Your task to perform on an android device: remove spam from my inbox in the gmail app Image 0: 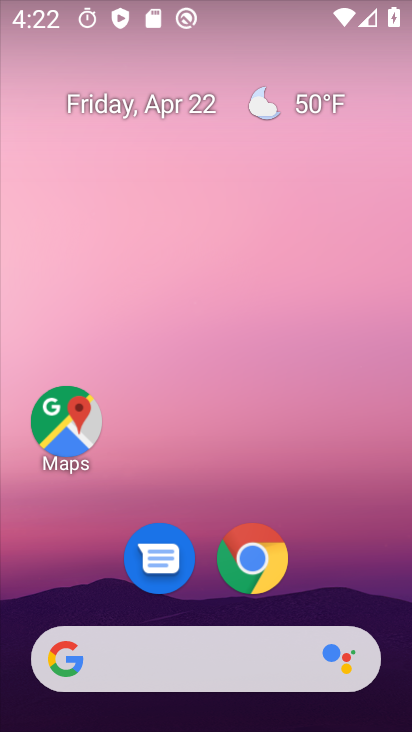
Step 0: drag from (318, 601) to (319, 134)
Your task to perform on an android device: remove spam from my inbox in the gmail app Image 1: 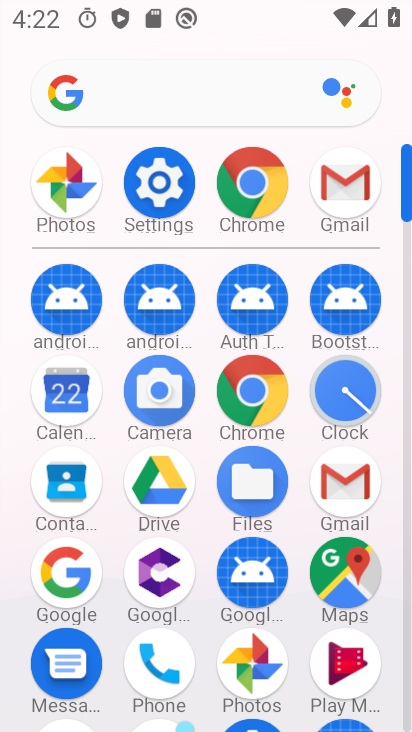
Step 1: click (358, 187)
Your task to perform on an android device: remove spam from my inbox in the gmail app Image 2: 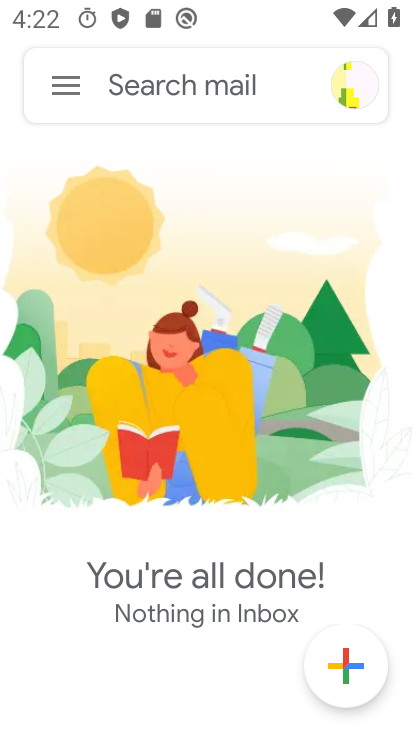
Step 2: click (64, 94)
Your task to perform on an android device: remove spam from my inbox in the gmail app Image 3: 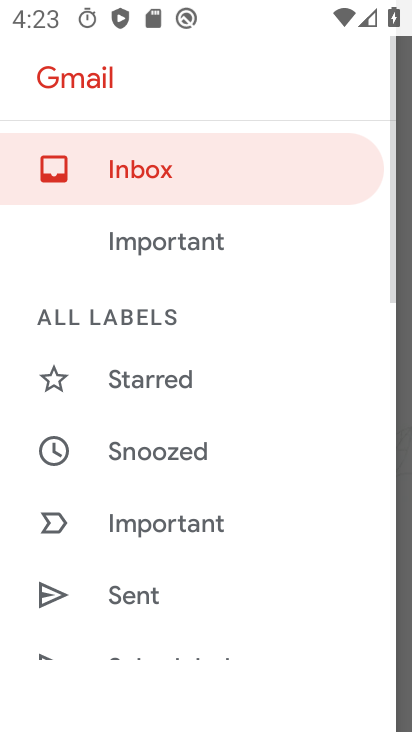
Step 3: drag from (235, 265) to (265, 560)
Your task to perform on an android device: remove spam from my inbox in the gmail app Image 4: 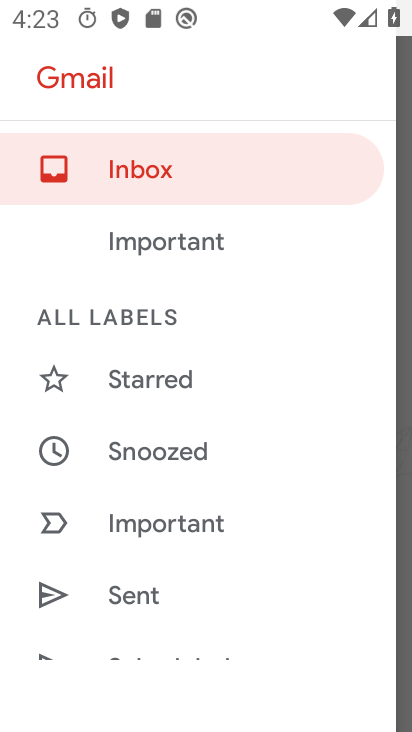
Step 4: drag from (230, 574) to (286, 196)
Your task to perform on an android device: remove spam from my inbox in the gmail app Image 5: 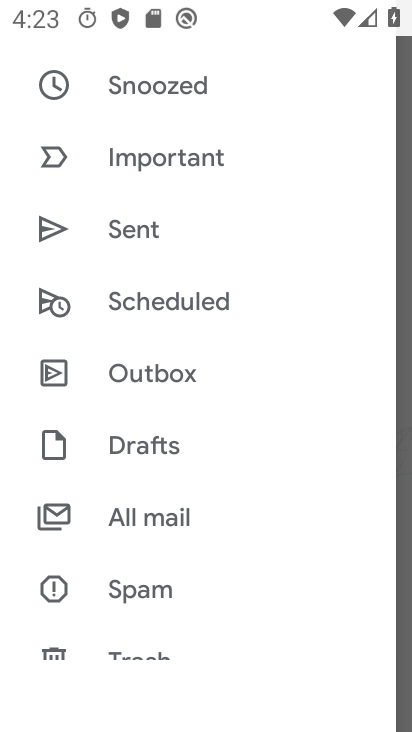
Step 5: click (143, 588)
Your task to perform on an android device: remove spam from my inbox in the gmail app Image 6: 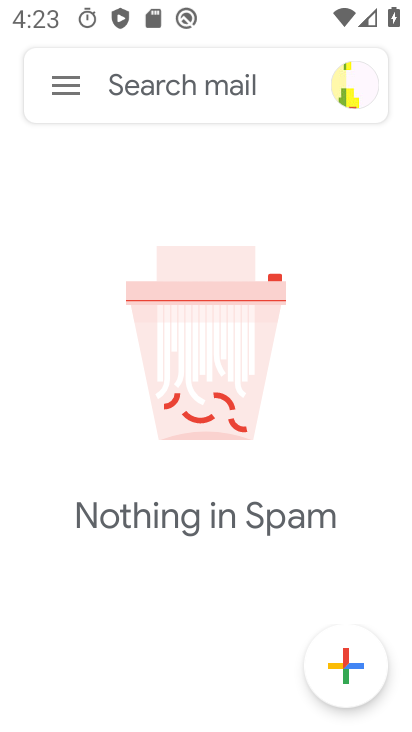
Step 6: task complete